Your task to perform on an android device: Turn off the flashlight Image 0: 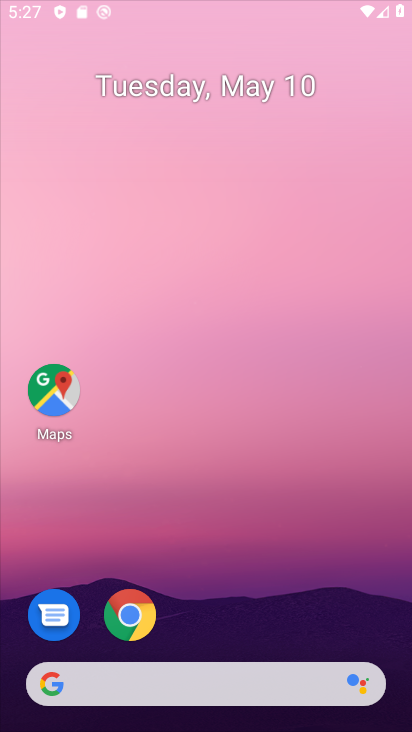
Step 0: drag from (227, 636) to (373, 6)
Your task to perform on an android device: Turn off the flashlight Image 1: 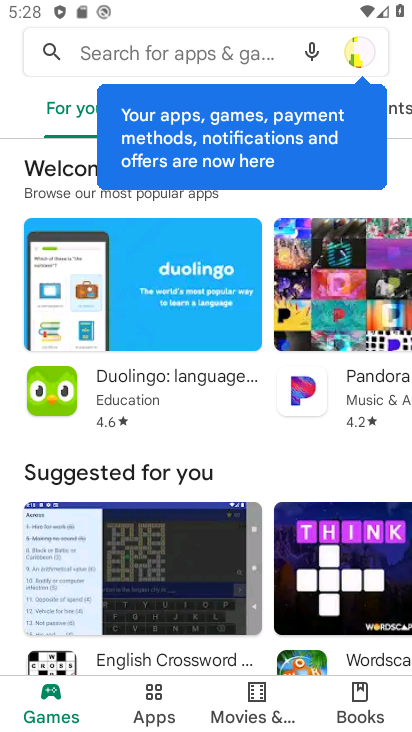
Step 1: press home button
Your task to perform on an android device: Turn off the flashlight Image 2: 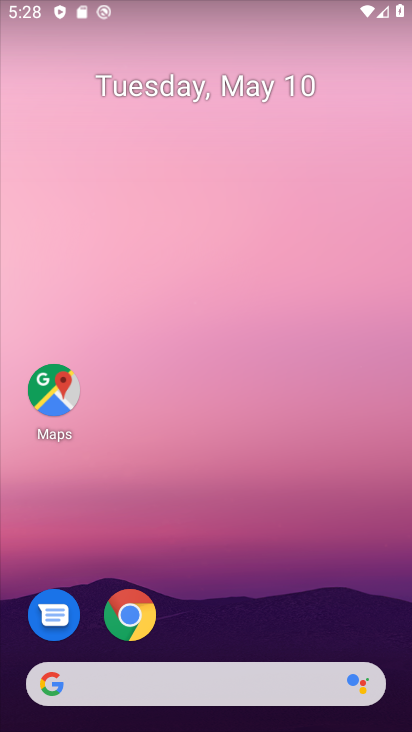
Step 2: drag from (233, 661) to (254, 51)
Your task to perform on an android device: Turn off the flashlight Image 3: 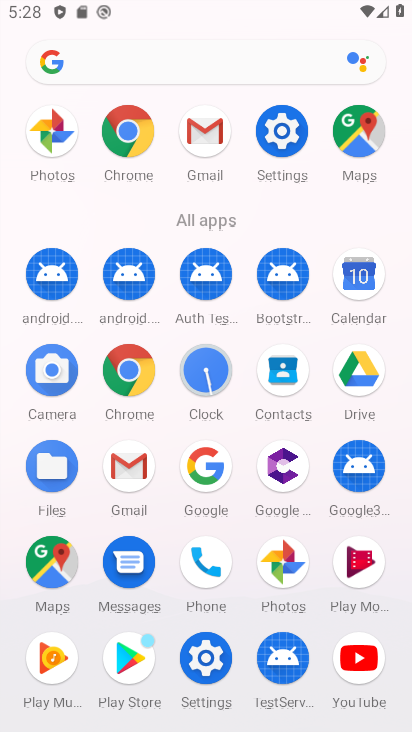
Step 3: click (276, 158)
Your task to perform on an android device: Turn off the flashlight Image 4: 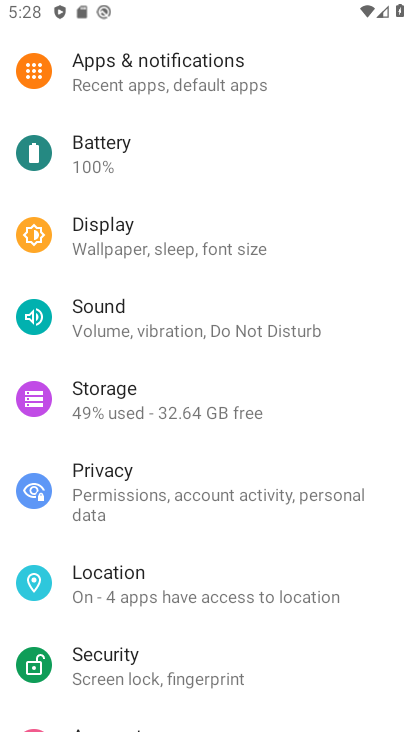
Step 4: drag from (265, 103) to (331, 647)
Your task to perform on an android device: Turn off the flashlight Image 5: 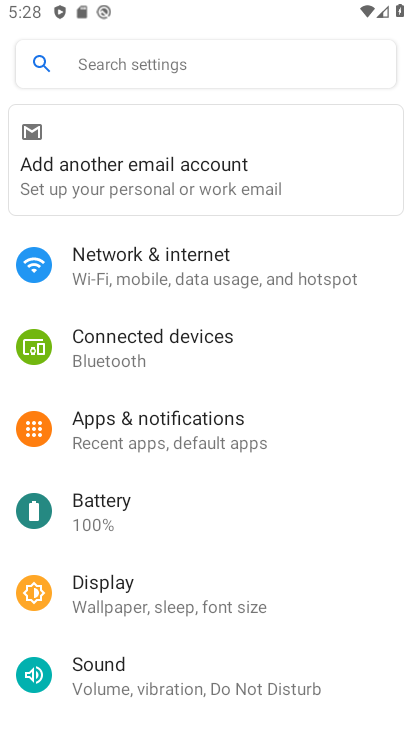
Step 5: click (254, 66)
Your task to perform on an android device: Turn off the flashlight Image 6: 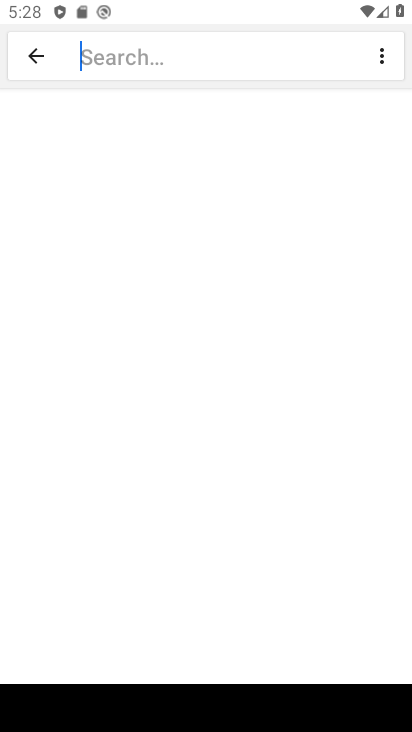
Step 6: type "flashlight"
Your task to perform on an android device: Turn off the flashlight Image 7: 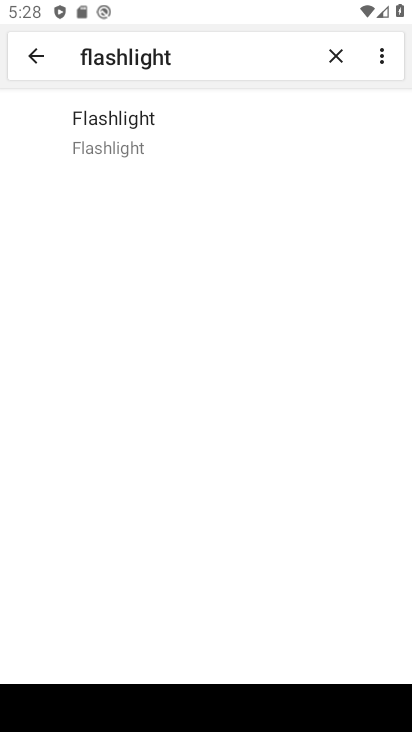
Step 7: click (178, 151)
Your task to perform on an android device: Turn off the flashlight Image 8: 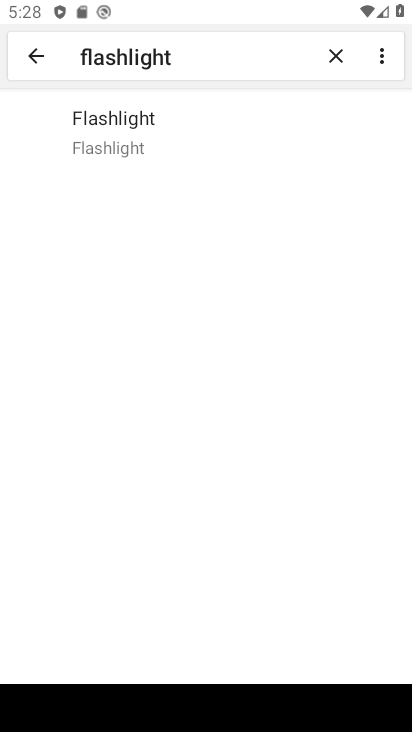
Step 8: click (170, 140)
Your task to perform on an android device: Turn off the flashlight Image 9: 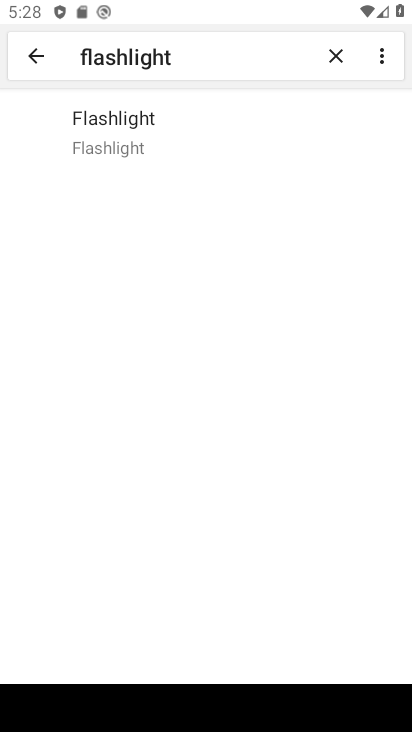
Step 9: click (170, 140)
Your task to perform on an android device: Turn off the flashlight Image 10: 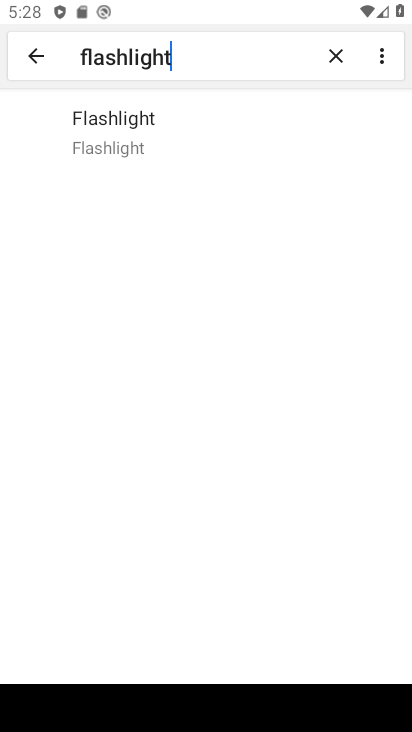
Step 10: task complete